Your task to perform on an android device: add a label to a message in the gmail app Image 0: 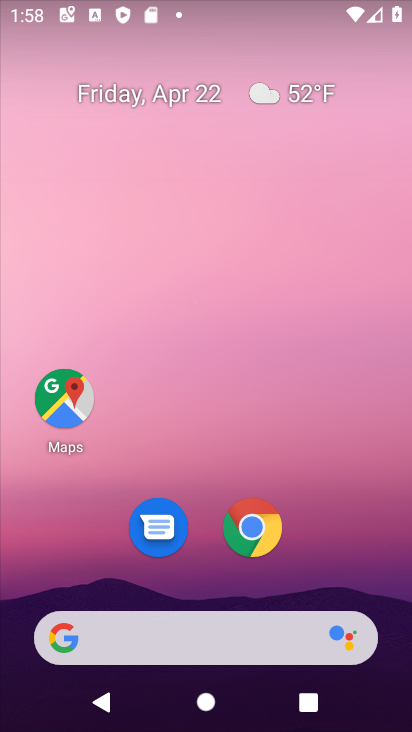
Step 0: drag from (316, 552) to (326, 139)
Your task to perform on an android device: add a label to a message in the gmail app Image 1: 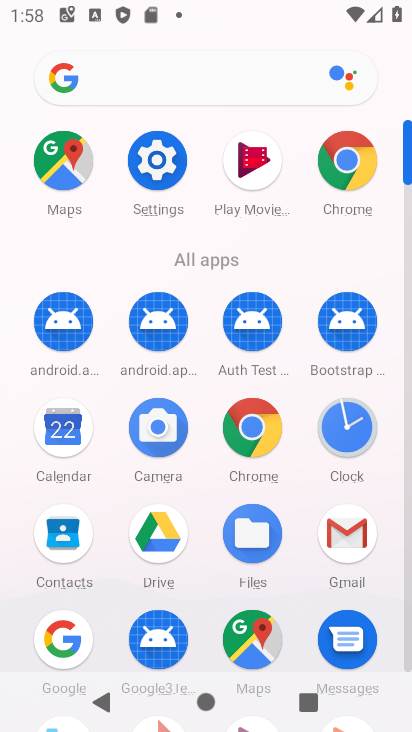
Step 1: click (347, 530)
Your task to perform on an android device: add a label to a message in the gmail app Image 2: 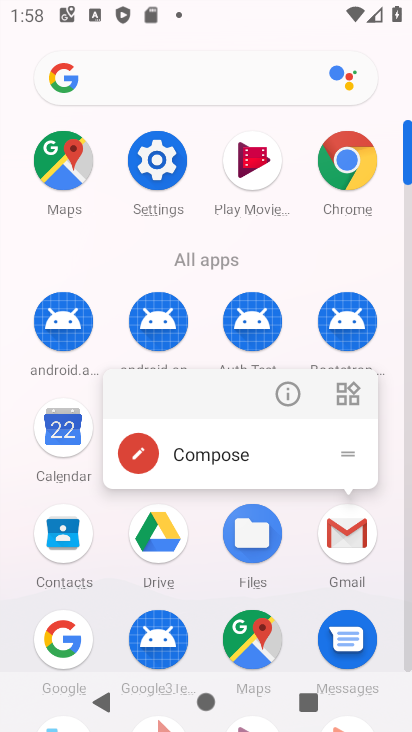
Step 2: click (346, 529)
Your task to perform on an android device: add a label to a message in the gmail app Image 3: 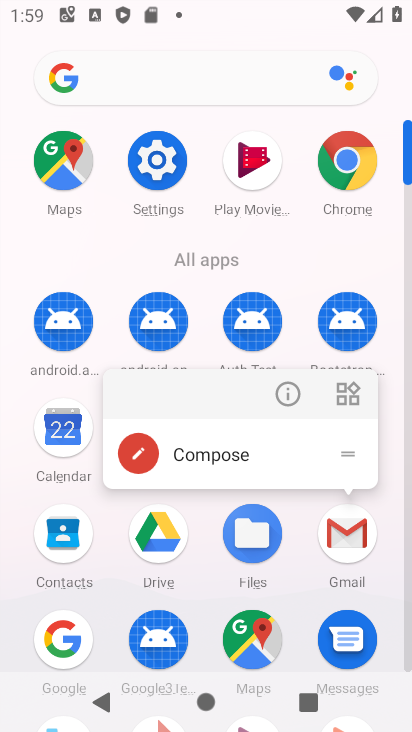
Step 3: click (346, 528)
Your task to perform on an android device: add a label to a message in the gmail app Image 4: 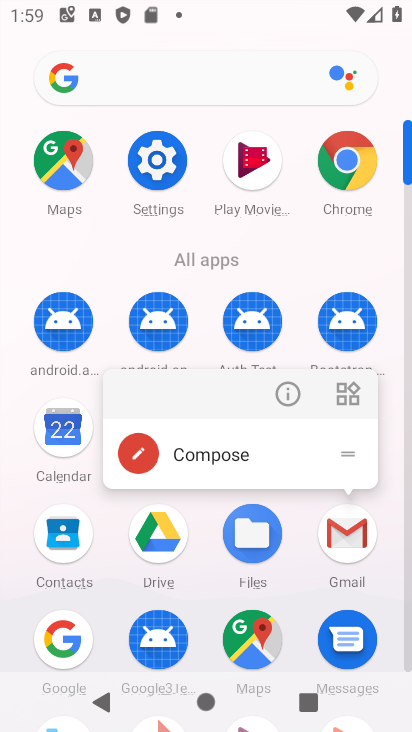
Step 4: click (346, 528)
Your task to perform on an android device: add a label to a message in the gmail app Image 5: 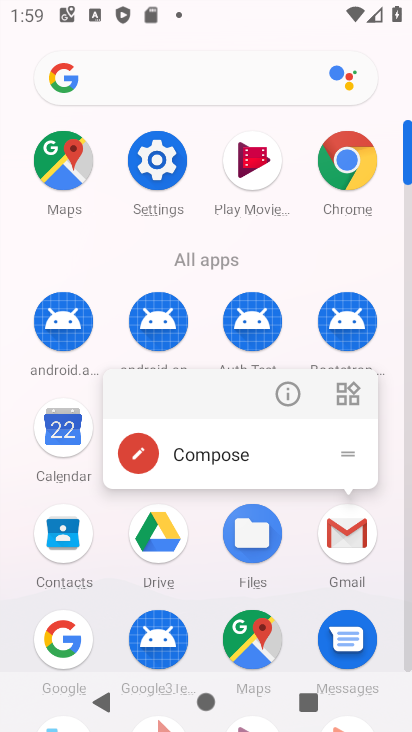
Step 5: click (346, 528)
Your task to perform on an android device: add a label to a message in the gmail app Image 6: 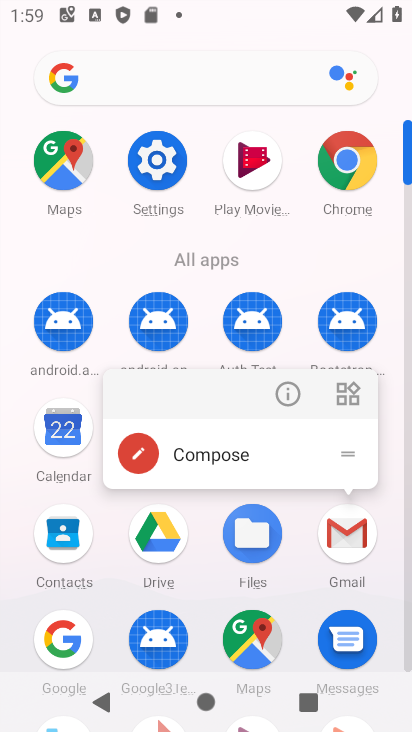
Step 6: click (346, 527)
Your task to perform on an android device: add a label to a message in the gmail app Image 7: 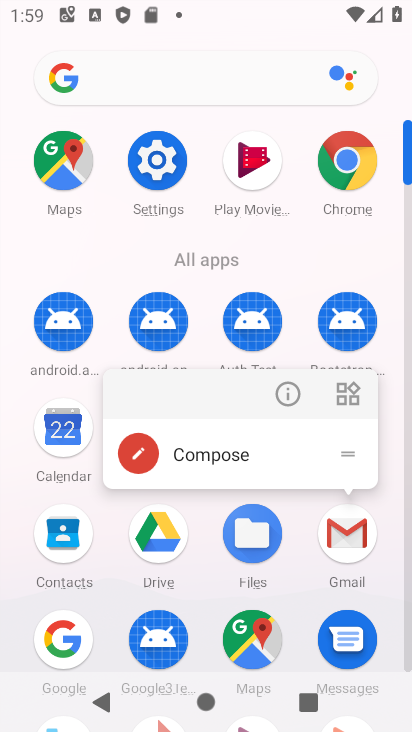
Step 7: click (346, 527)
Your task to perform on an android device: add a label to a message in the gmail app Image 8: 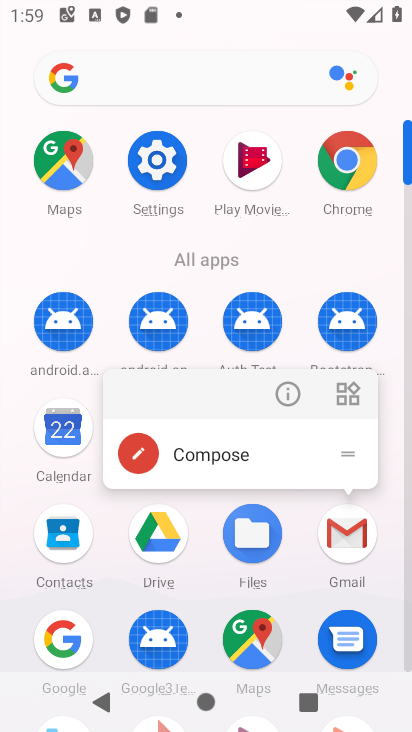
Step 8: click (346, 528)
Your task to perform on an android device: add a label to a message in the gmail app Image 9: 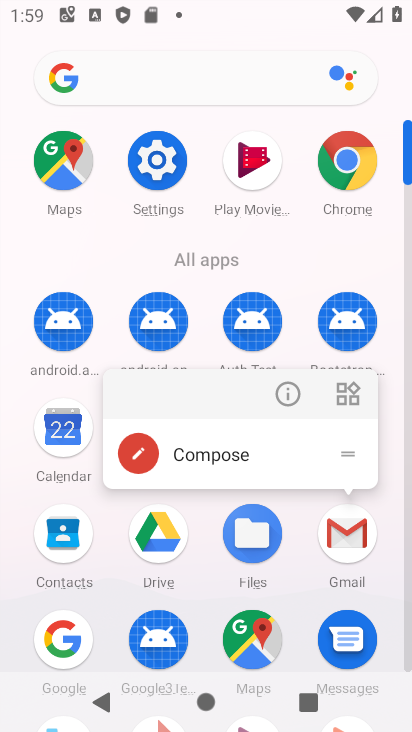
Step 9: click (346, 528)
Your task to perform on an android device: add a label to a message in the gmail app Image 10: 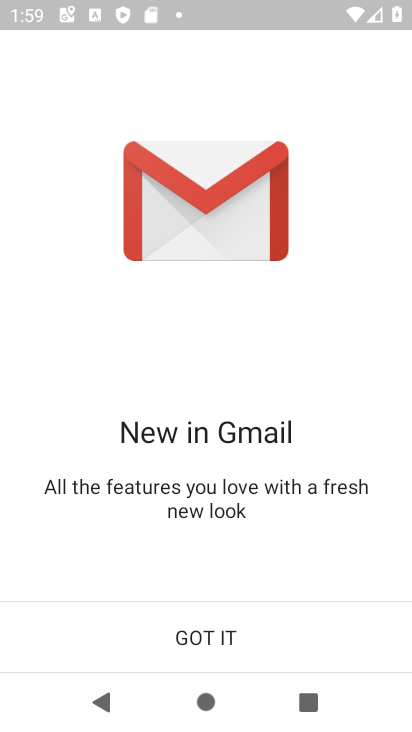
Step 10: click (205, 624)
Your task to perform on an android device: add a label to a message in the gmail app Image 11: 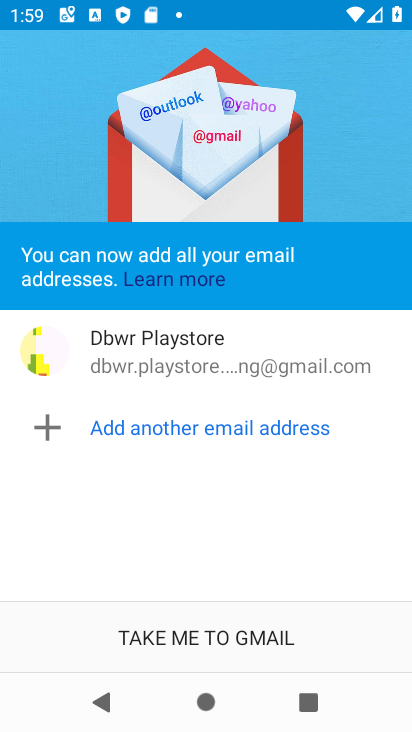
Step 11: click (180, 633)
Your task to perform on an android device: add a label to a message in the gmail app Image 12: 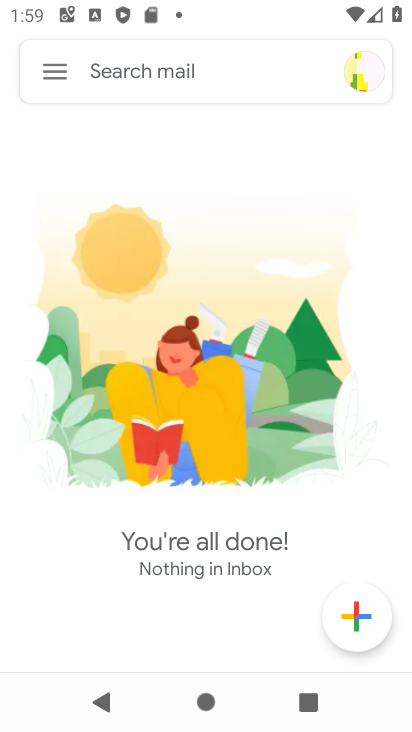
Step 12: task complete